Your task to perform on an android device: Do I have any events today? Image 0: 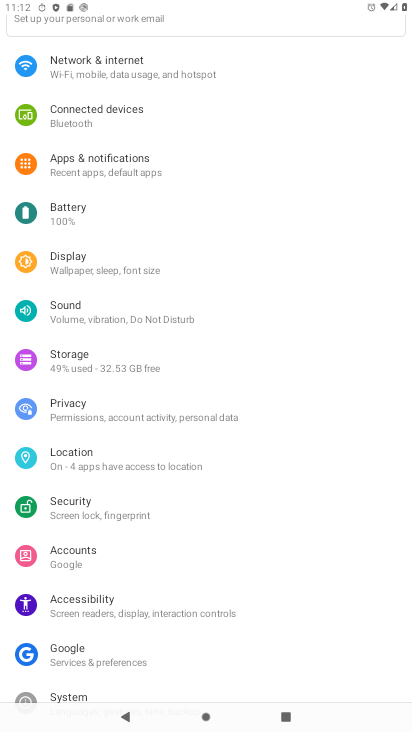
Step 0: press home button
Your task to perform on an android device: Do I have any events today? Image 1: 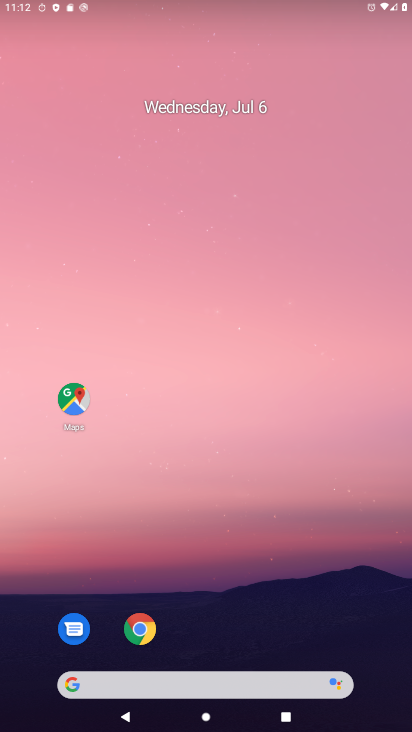
Step 1: drag from (240, 646) to (294, 56)
Your task to perform on an android device: Do I have any events today? Image 2: 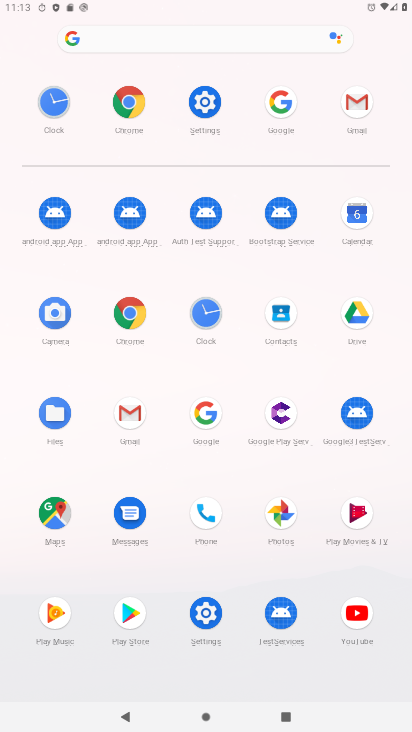
Step 2: click (357, 214)
Your task to perform on an android device: Do I have any events today? Image 3: 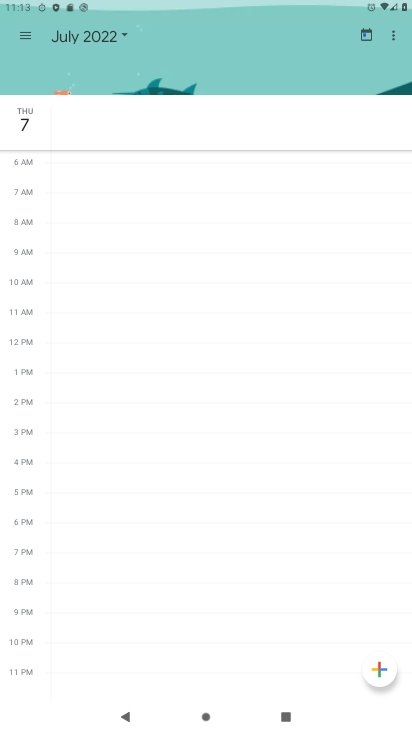
Step 3: click (26, 29)
Your task to perform on an android device: Do I have any events today? Image 4: 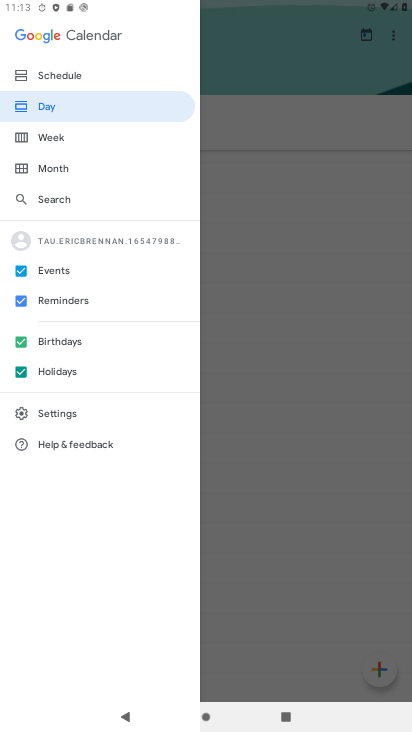
Step 4: click (72, 69)
Your task to perform on an android device: Do I have any events today? Image 5: 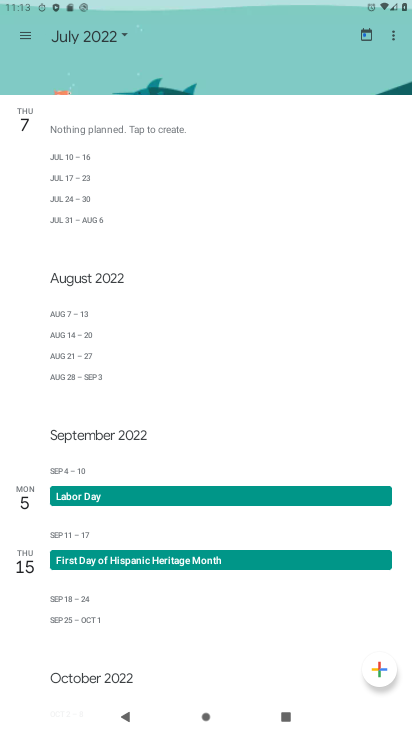
Step 5: click (113, 31)
Your task to perform on an android device: Do I have any events today? Image 6: 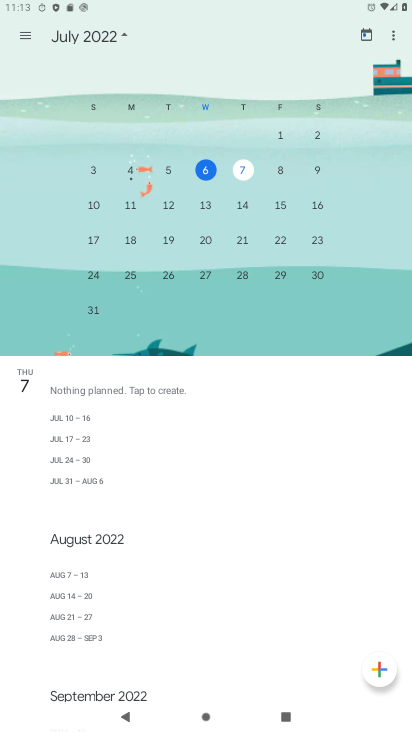
Step 6: click (207, 163)
Your task to perform on an android device: Do I have any events today? Image 7: 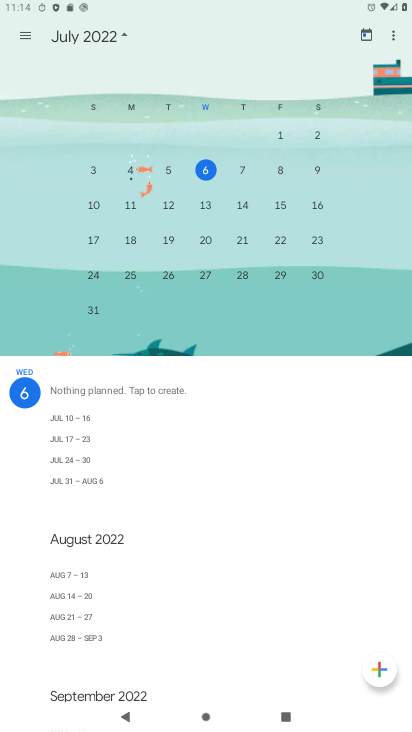
Step 7: task complete